Your task to perform on an android device: Search for vegetarian restaurants on Maps Image 0: 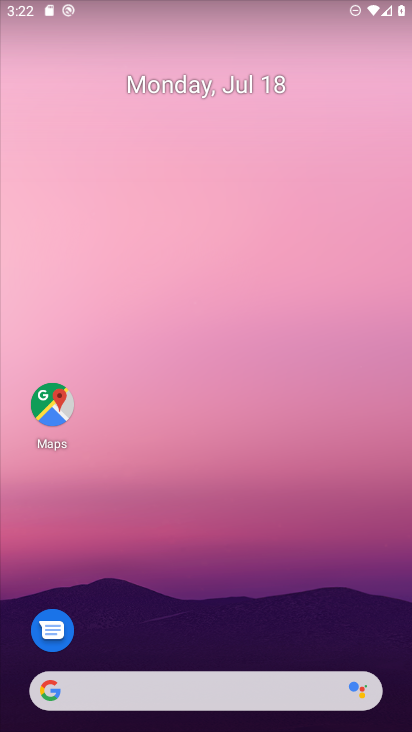
Step 0: drag from (318, 101) to (305, 26)
Your task to perform on an android device: Search for vegetarian restaurants on Maps Image 1: 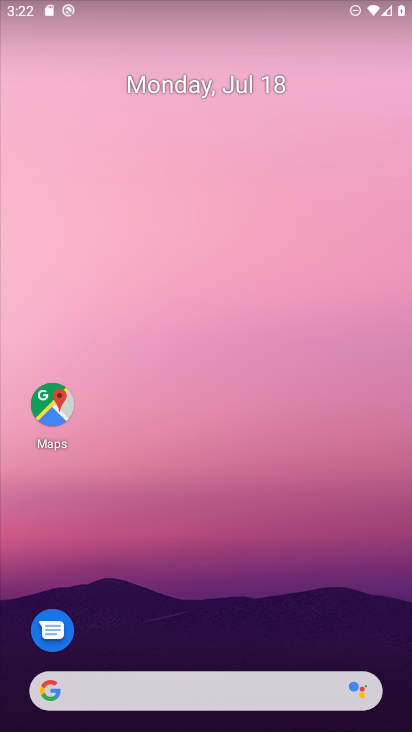
Step 1: drag from (210, 640) to (236, 32)
Your task to perform on an android device: Search for vegetarian restaurants on Maps Image 2: 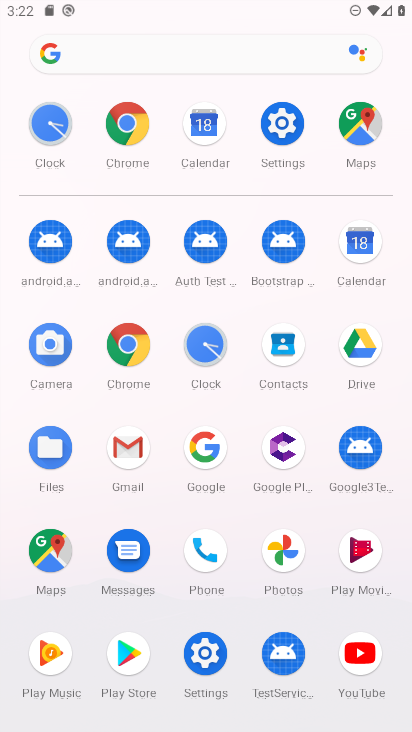
Step 2: click (55, 562)
Your task to perform on an android device: Search for vegetarian restaurants on Maps Image 3: 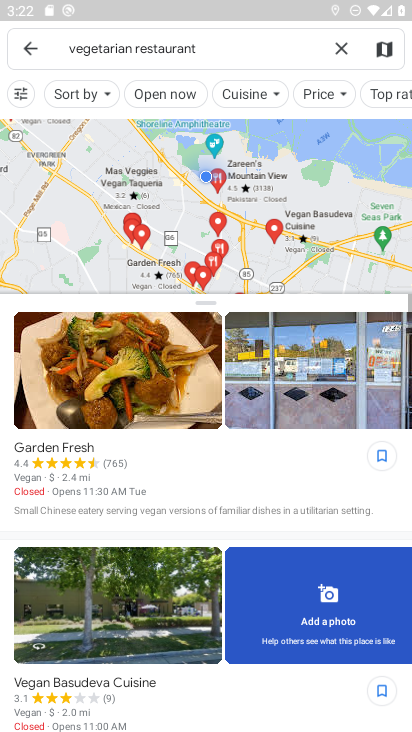
Step 3: task complete